Your task to perform on an android device: toggle wifi Image 0: 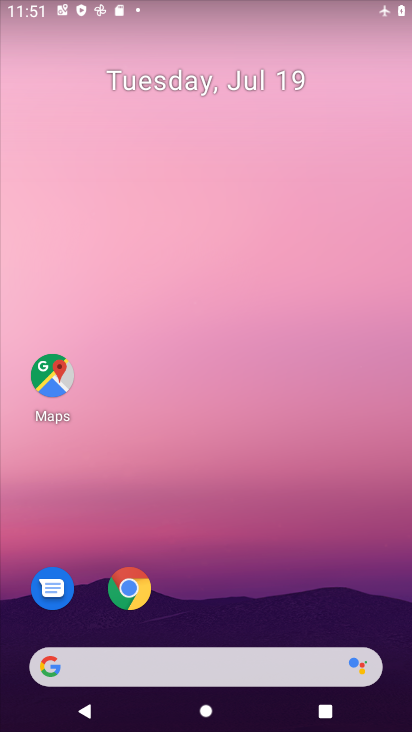
Step 0: drag from (232, 106) to (258, 580)
Your task to perform on an android device: toggle wifi Image 1: 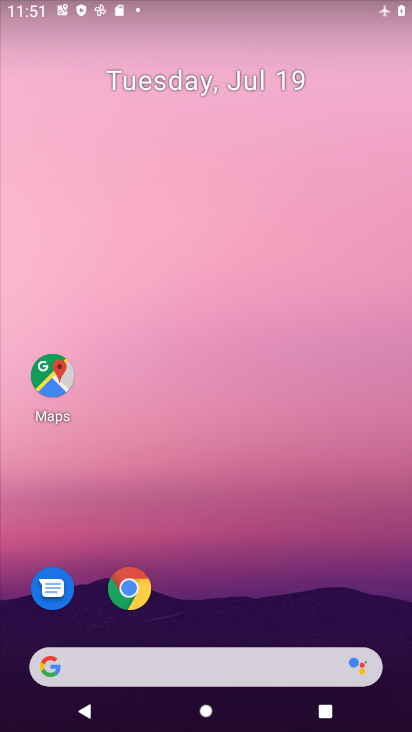
Step 1: drag from (227, 3) to (215, 604)
Your task to perform on an android device: toggle wifi Image 2: 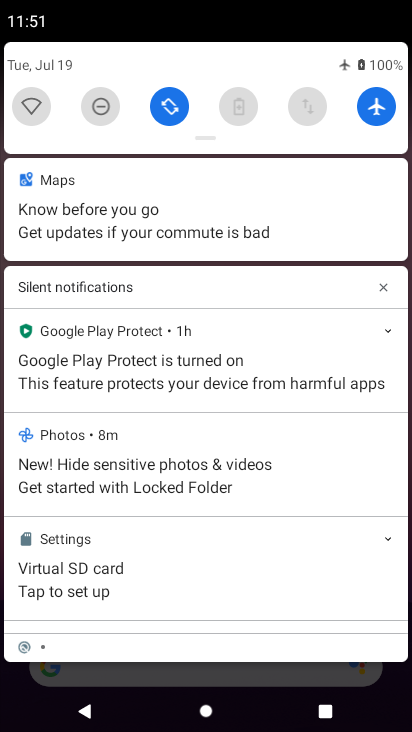
Step 2: click (34, 102)
Your task to perform on an android device: toggle wifi Image 3: 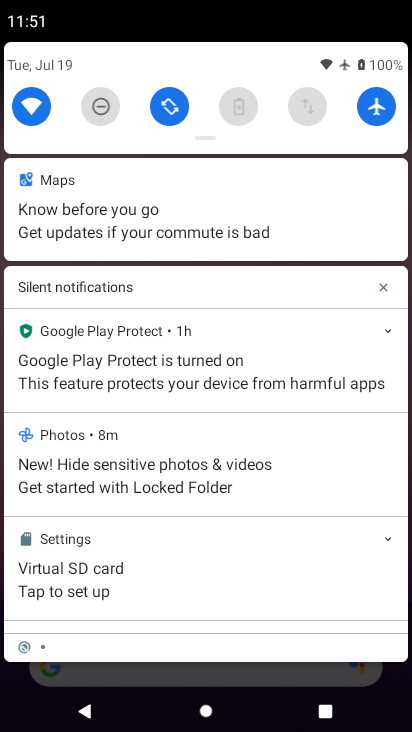
Step 3: task complete